Your task to perform on an android device: open chrome privacy settings Image 0: 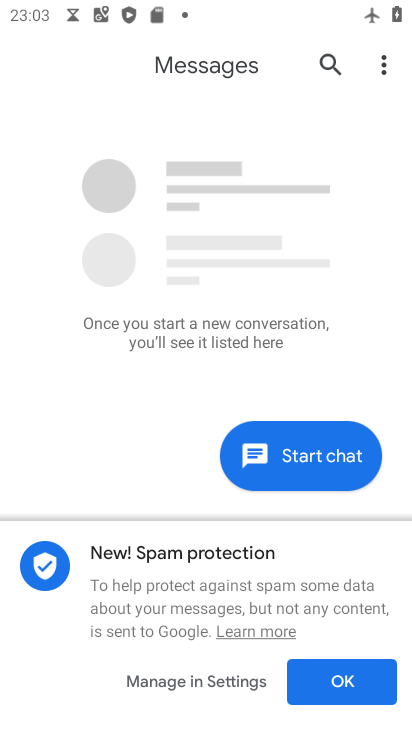
Step 0: press back button
Your task to perform on an android device: open chrome privacy settings Image 1: 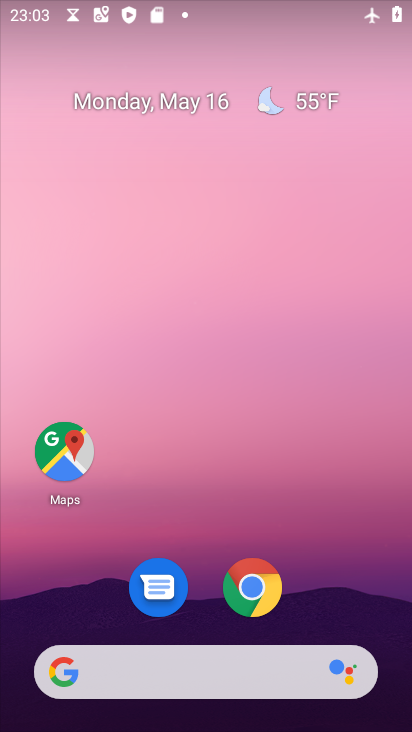
Step 1: drag from (297, 535) to (226, 0)
Your task to perform on an android device: open chrome privacy settings Image 2: 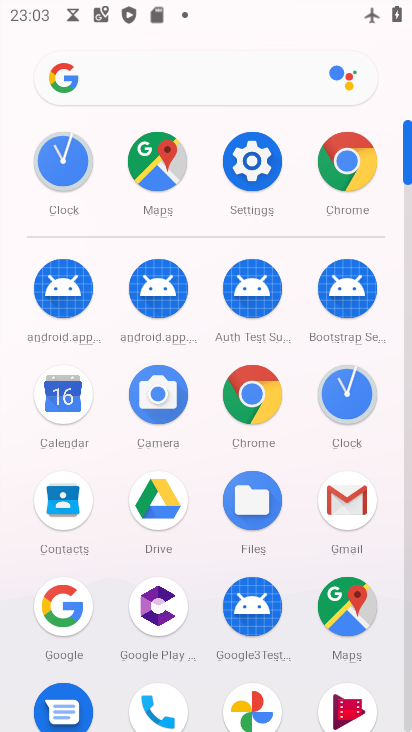
Step 2: click (350, 157)
Your task to perform on an android device: open chrome privacy settings Image 3: 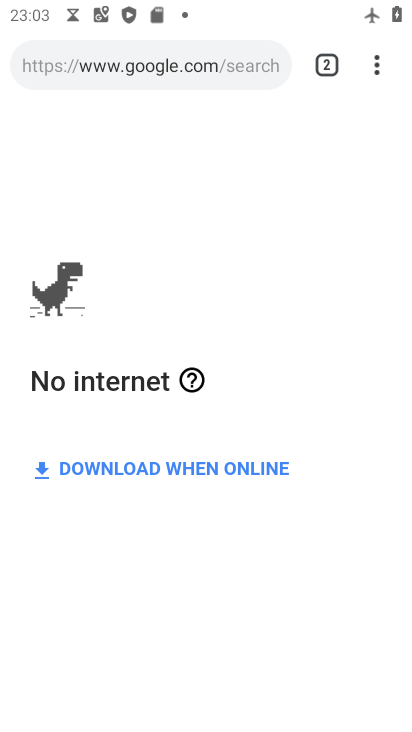
Step 3: drag from (375, 67) to (149, 622)
Your task to perform on an android device: open chrome privacy settings Image 4: 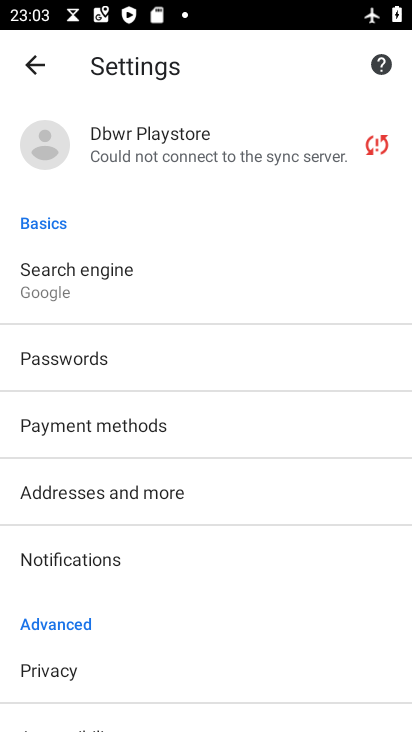
Step 4: drag from (214, 633) to (227, 250)
Your task to perform on an android device: open chrome privacy settings Image 5: 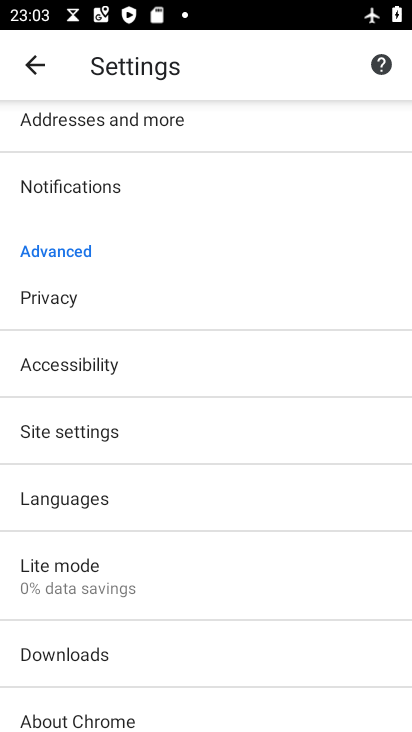
Step 5: click (111, 300)
Your task to perform on an android device: open chrome privacy settings Image 6: 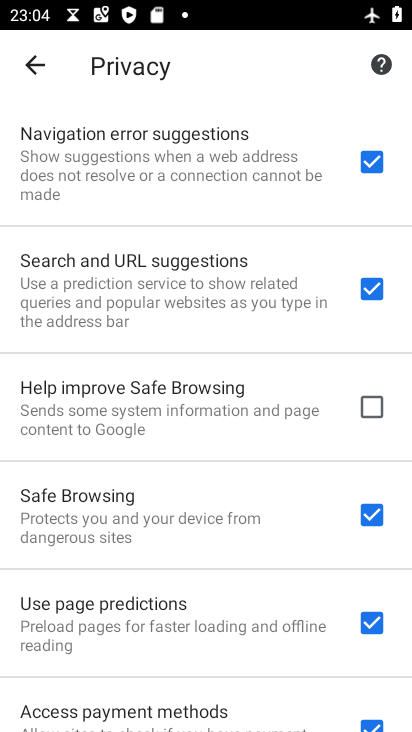
Step 6: task complete